Your task to perform on an android device: toggle pop-ups in chrome Image 0: 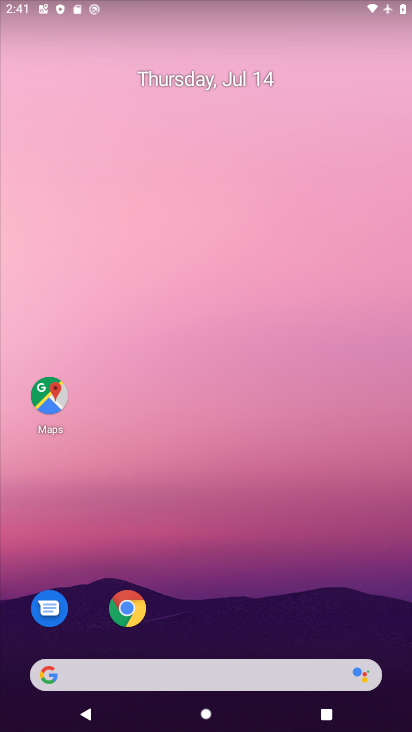
Step 0: click (147, 612)
Your task to perform on an android device: toggle pop-ups in chrome Image 1: 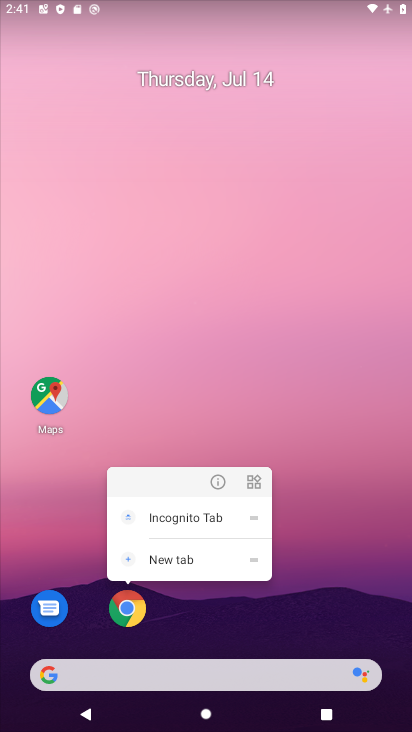
Step 1: click (145, 607)
Your task to perform on an android device: toggle pop-ups in chrome Image 2: 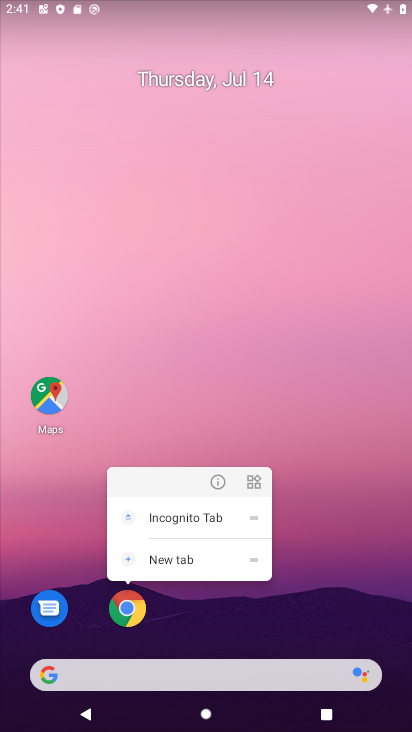
Step 2: click (130, 612)
Your task to perform on an android device: toggle pop-ups in chrome Image 3: 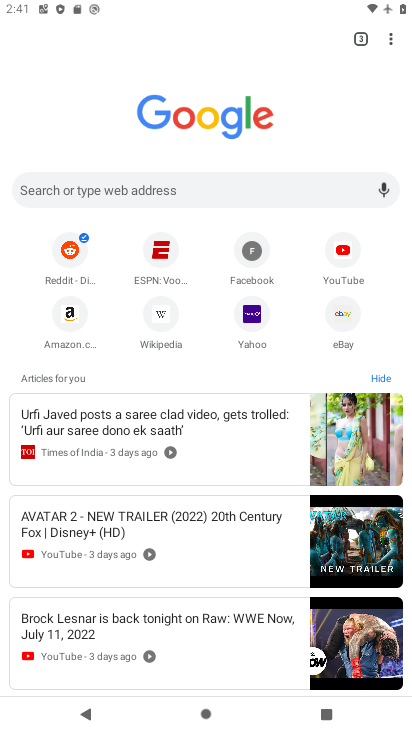
Step 3: drag from (395, 32) to (237, 327)
Your task to perform on an android device: toggle pop-ups in chrome Image 4: 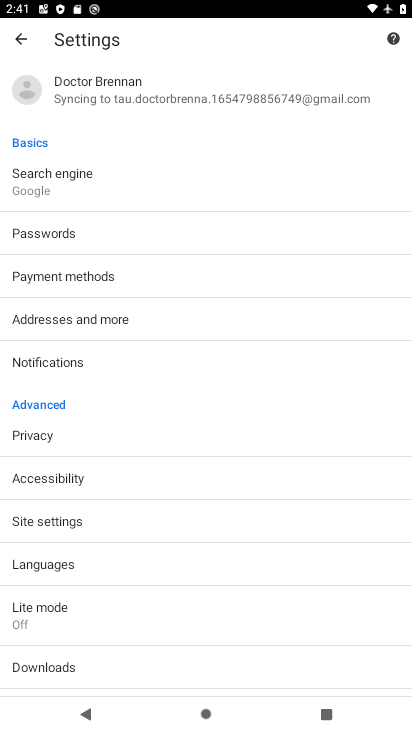
Step 4: click (59, 517)
Your task to perform on an android device: toggle pop-ups in chrome Image 5: 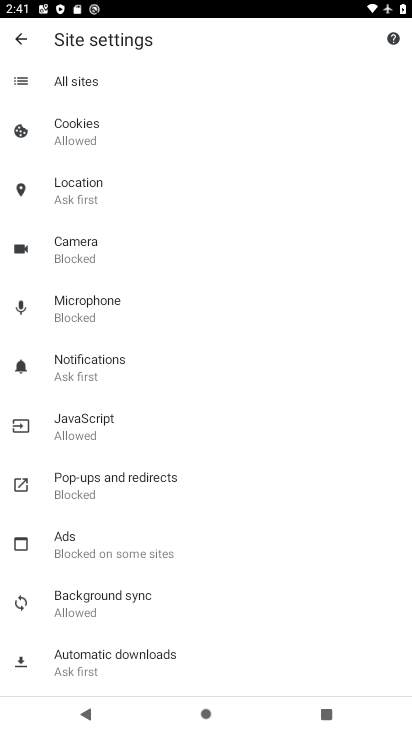
Step 5: click (128, 492)
Your task to perform on an android device: toggle pop-ups in chrome Image 6: 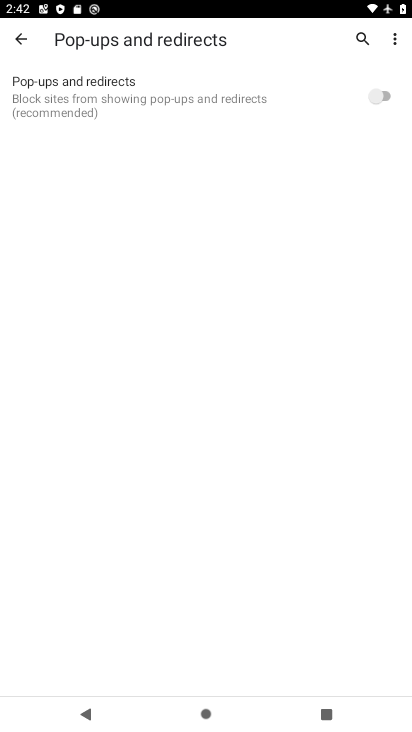
Step 6: click (386, 92)
Your task to perform on an android device: toggle pop-ups in chrome Image 7: 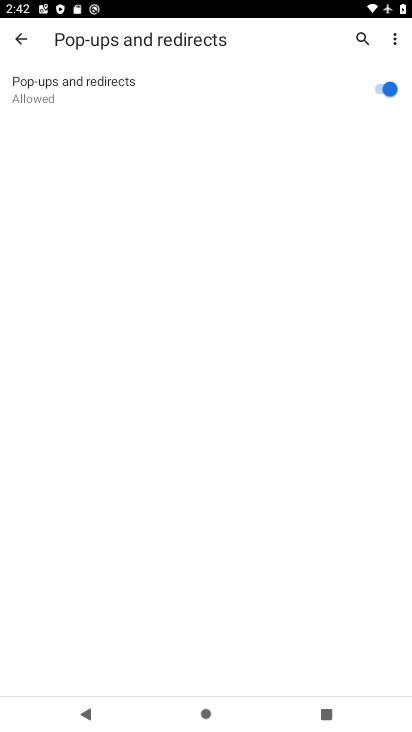
Step 7: task complete